Your task to perform on an android device: toggle notification dots Image 0: 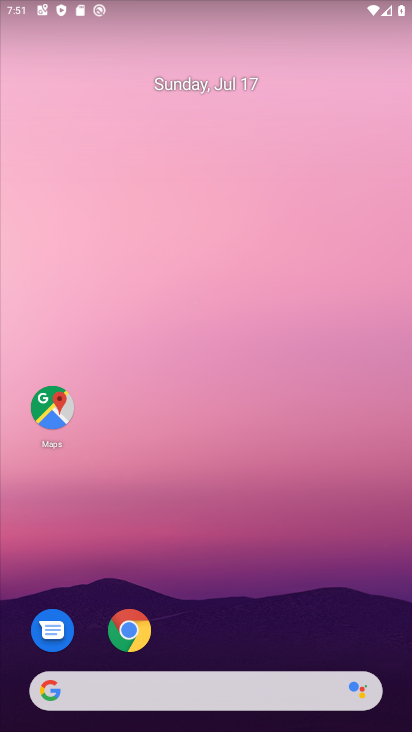
Step 0: drag from (118, 663) to (119, 87)
Your task to perform on an android device: toggle notification dots Image 1: 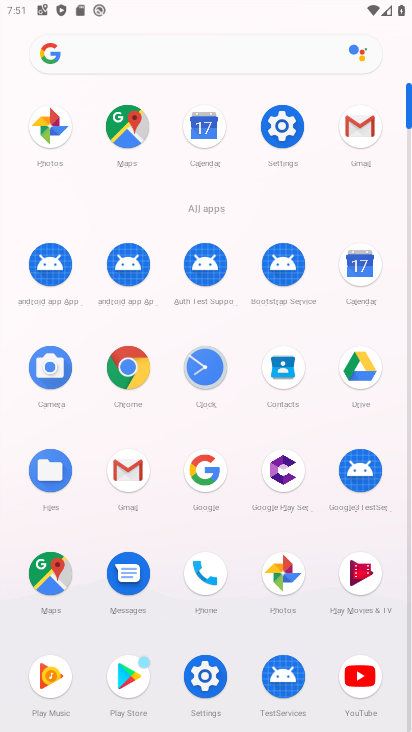
Step 1: click (284, 128)
Your task to perform on an android device: toggle notification dots Image 2: 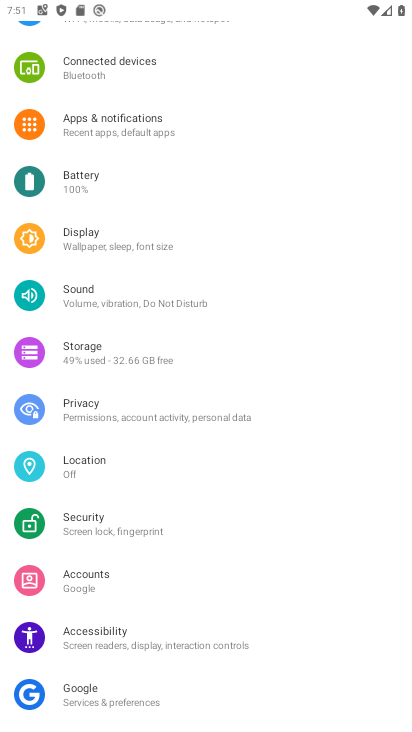
Step 2: click (167, 132)
Your task to perform on an android device: toggle notification dots Image 3: 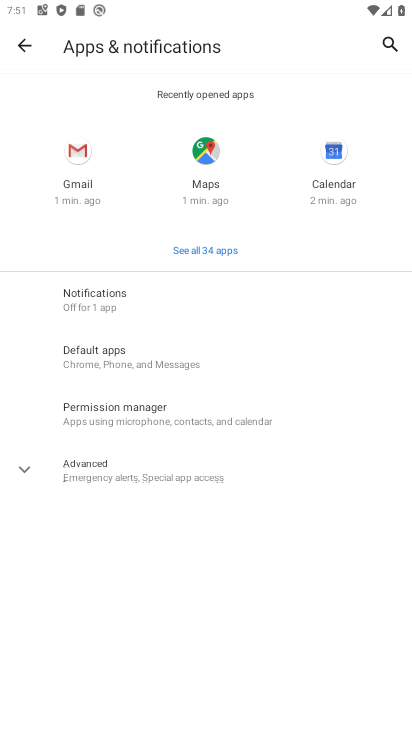
Step 3: click (130, 282)
Your task to perform on an android device: toggle notification dots Image 4: 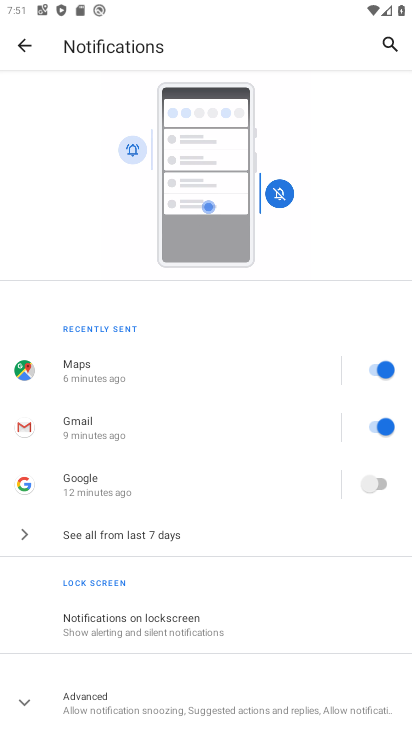
Step 4: drag from (293, 640) to (185, 5)
Your task to perform on an android device: toggle notification dots Image 5: 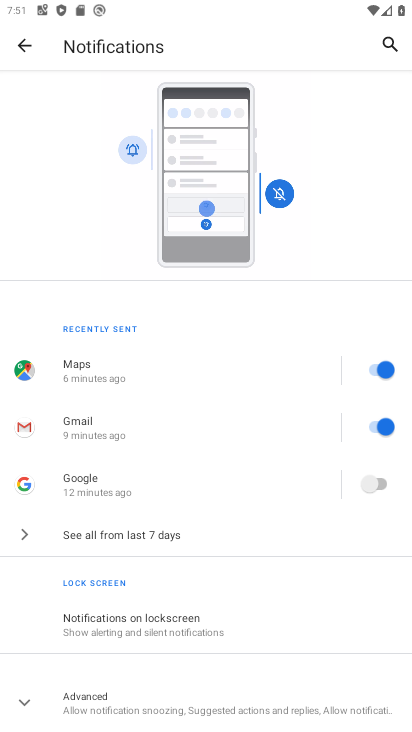
Step 5: click (219, 716)
Your task to perform on an android device: toggle notification dots Image 6: 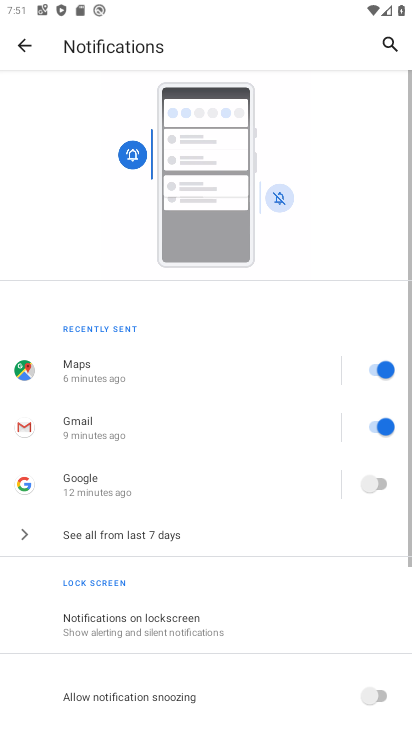
Step 6: drag from (203, 601) to (209, 20)
Your task to perform on an android device: toggle notification dots Image 7: 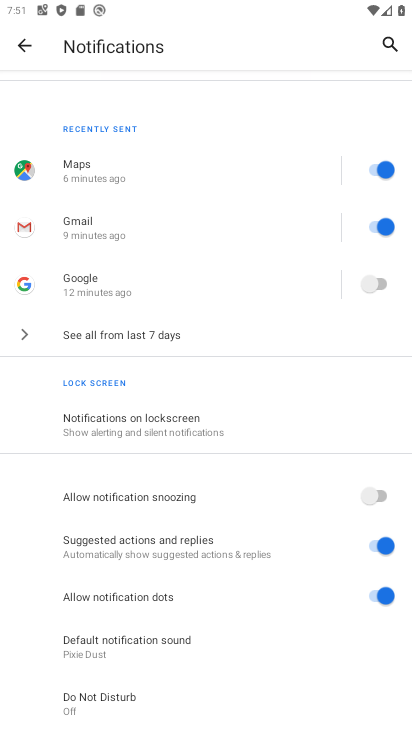
Step 7: click (386, 604)
Your task to perform on an android device: toggle notification dots Image 8: 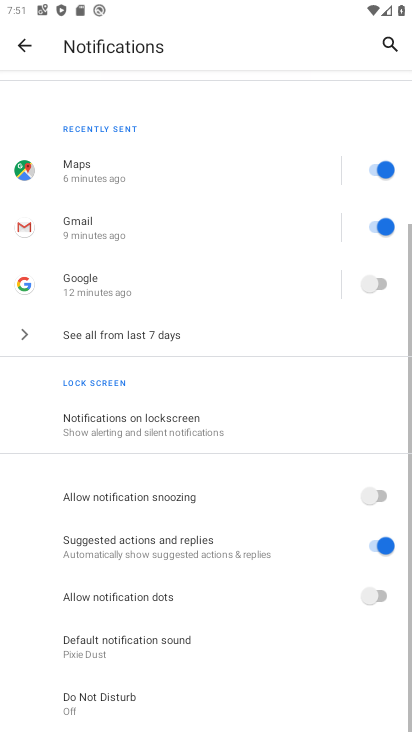
Step 8: task complete